Your task to perform on an android device: turn notification dots on Image 0: 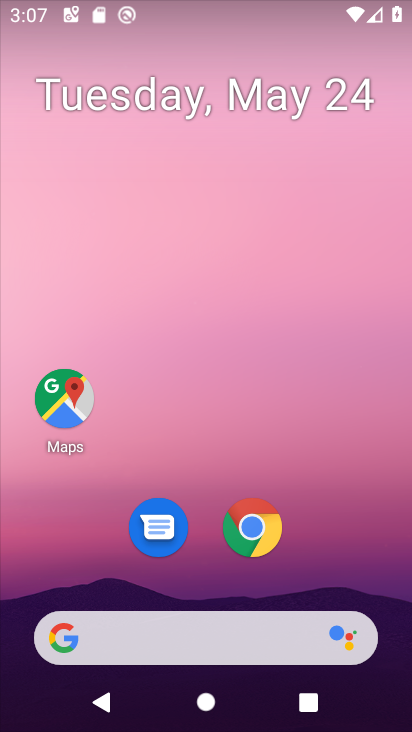
Step 0: drag from (325, 586) to (341, 41)
Your task to perform on an android device: turn notification dots on Image 1: 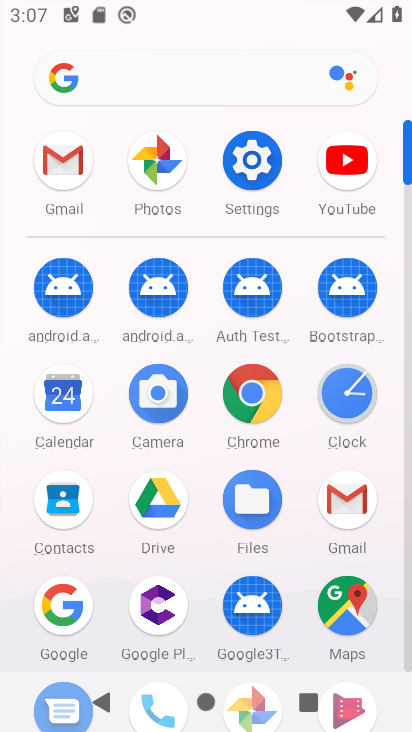
Step 1: click (247, 156)
Your task to perform on an android device: turn notification dots on Image 2: 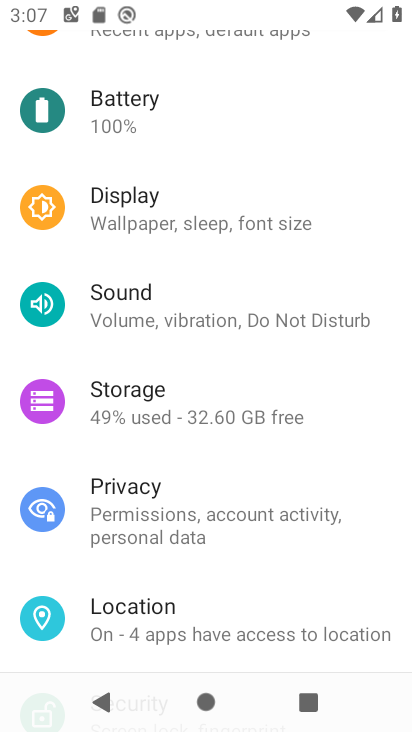
Step 2: drag from (368, 150) to (367, 266)
Your task to perform on an android device: turn notification dots on Image 3: 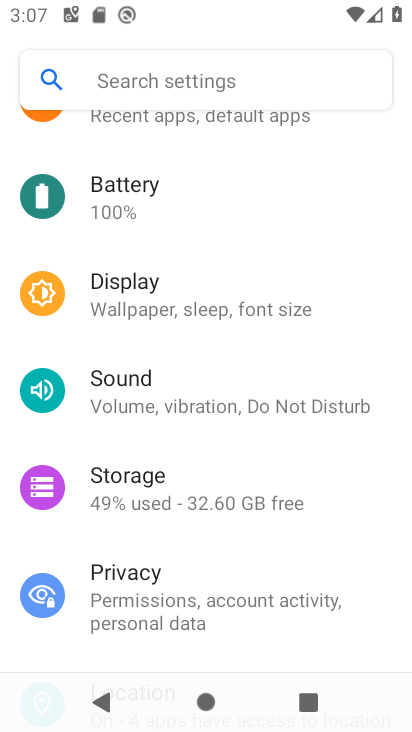
Step 3: drag from (364, 264) to (363, 408)
Your task to perform on an android device: turn notification dots on Image 4: 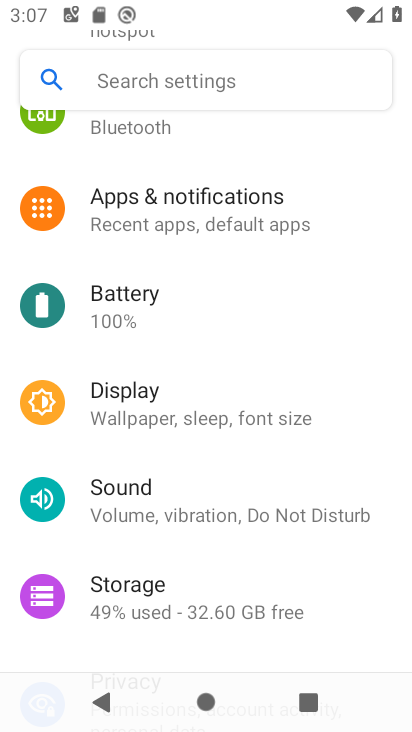
Step 4: click (197, 209)
Your task to perform on an android device: turn notification dots on Image 5: 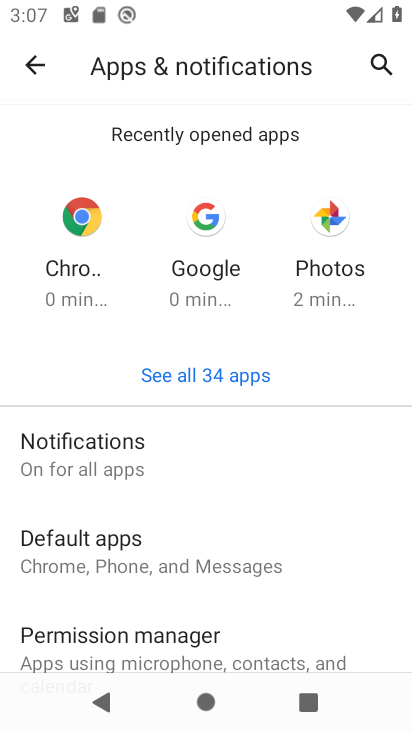
Step 5: click (83, 451)
Your task to perform on an android device: turn notification dots on Image 6: 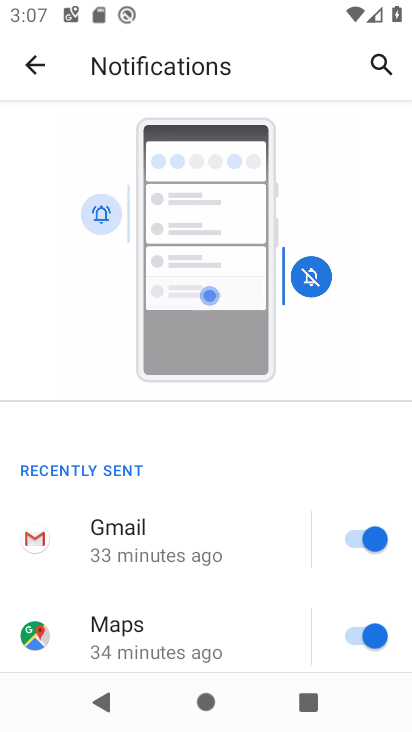
Step 6: drag from (167, 517) to (163, 39)
Your task to perform on an android device: turn notification dots on Image 7: 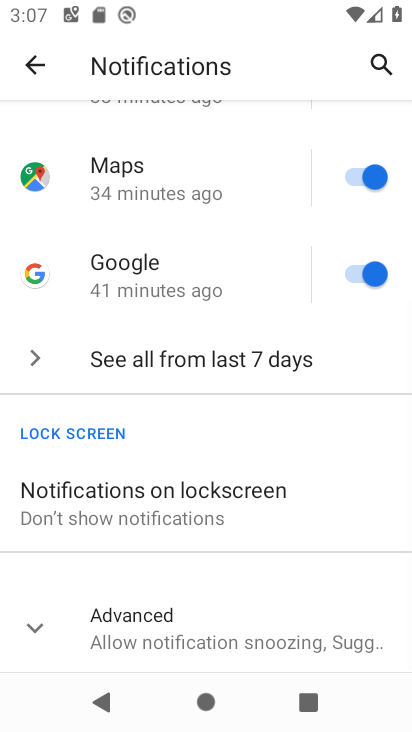
Step 7: drag from (187, 527) to (172, 166)
Your task to perform on an android device: turn notification dots on Image 8: 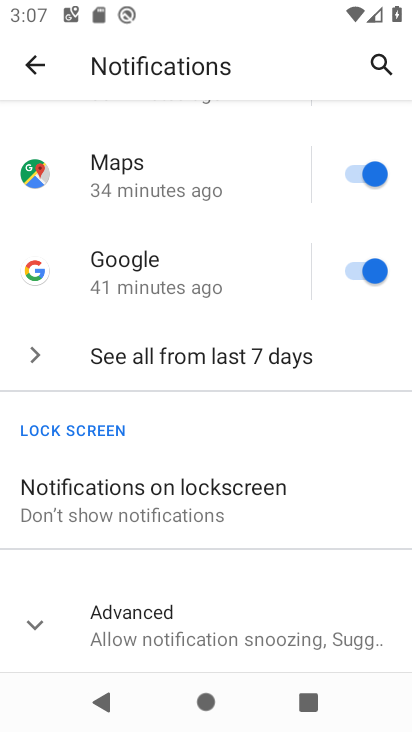
Step 8: click (35, 632)
Your task to perform on an android device: turn notification dots on Image 9: 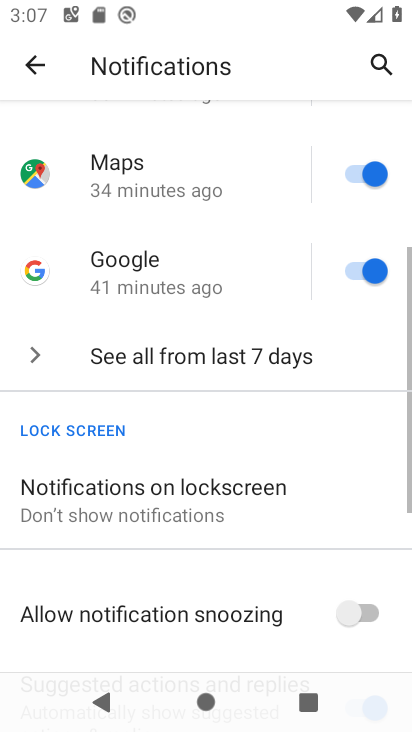
Step 9: task complete